Your task to perform on an android device: toggle sleep mode Image 0: 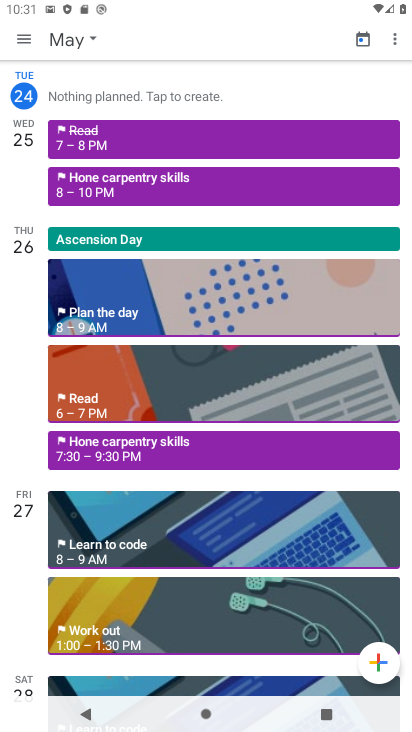
Step 0: press home button
Your task to perform on an android device: toggle sleep mode Image 1: 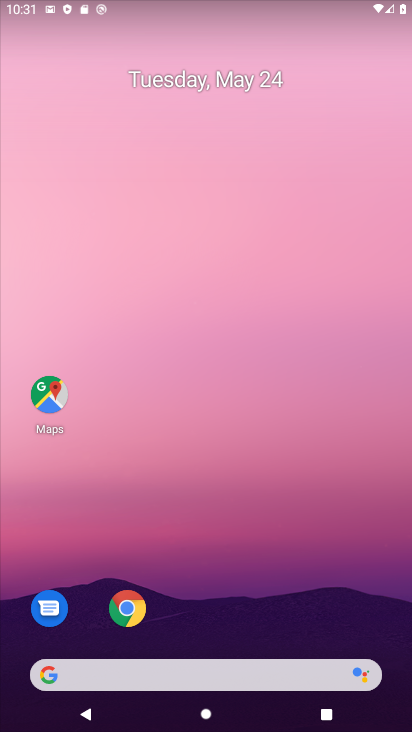
Step 1: drag from (376, 620) to (260, 54)
Your task to perform on an android device: toggle sleep mode Image 2: 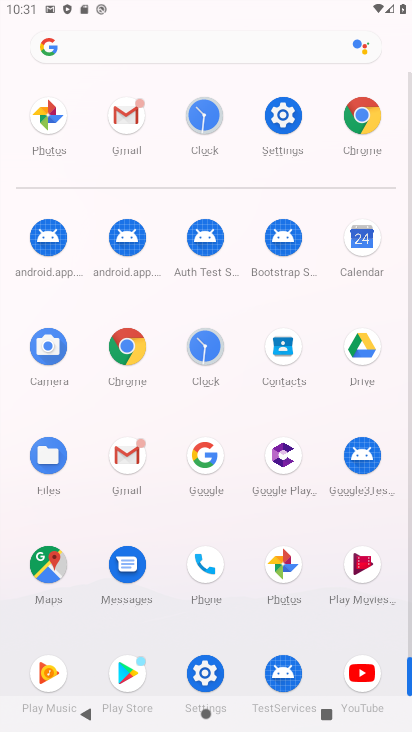
Step 2: click (205, 671)
Your task to perform on an android device: toggle sleep mode Image 3: 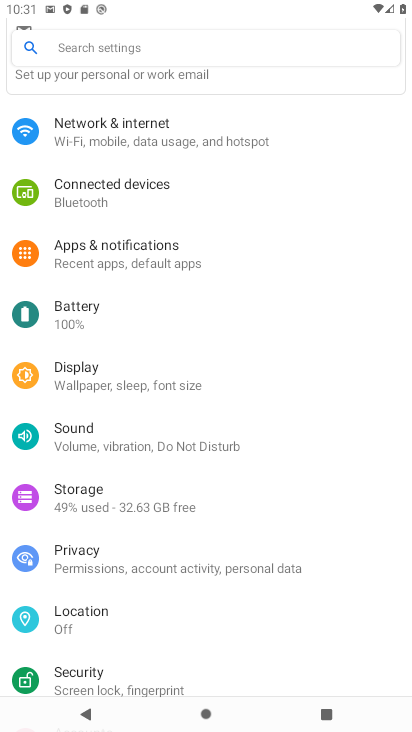
Step 3: click (84, 378)
Your task to perform on an android device: toggle sleep mode Image 4: 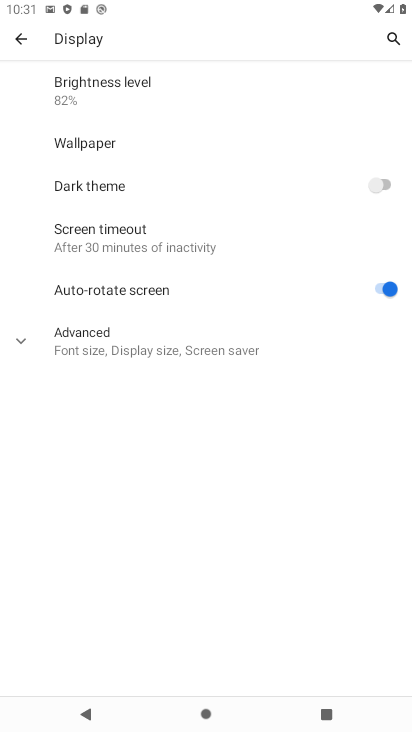
Step 4: click (20, 344)
Your task to perform on an android device: toggle sleep mode Image 5: 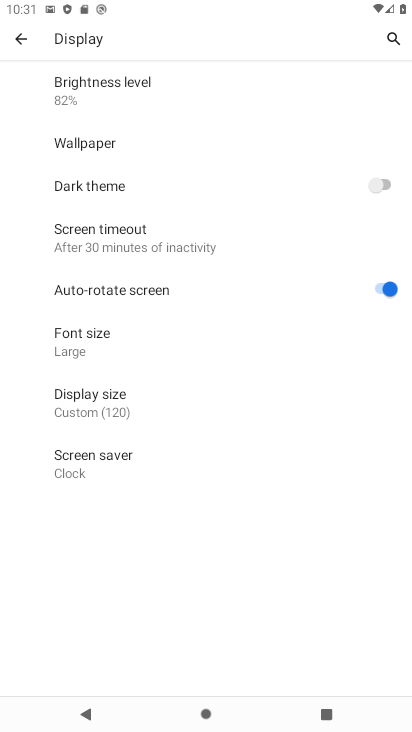
Step 5: task complete